Your task to perform on an android device: See recent photos Image 0: 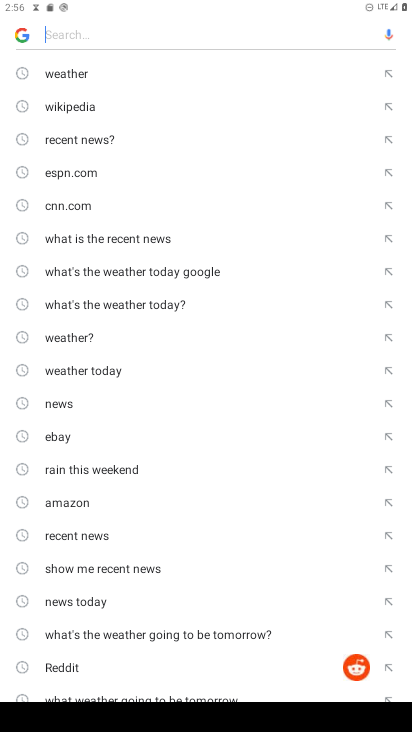
Step 0: press home button
Your task to perform on an android device: See recent photos Image 1: 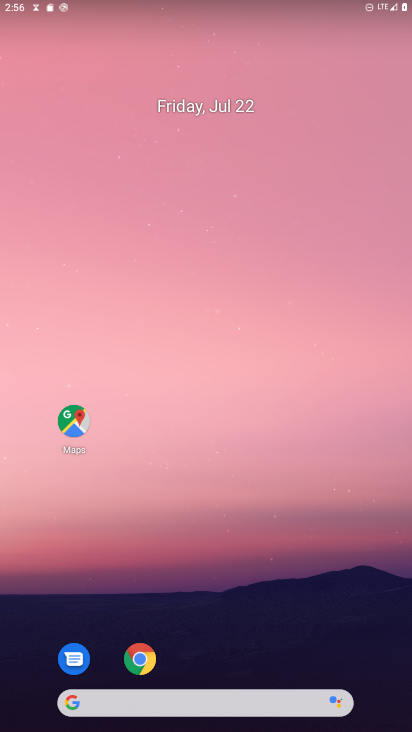
Step 1: drag from (209, 574) to (286, 86)
Your task to perform on an android device: See recent photos Image 2: 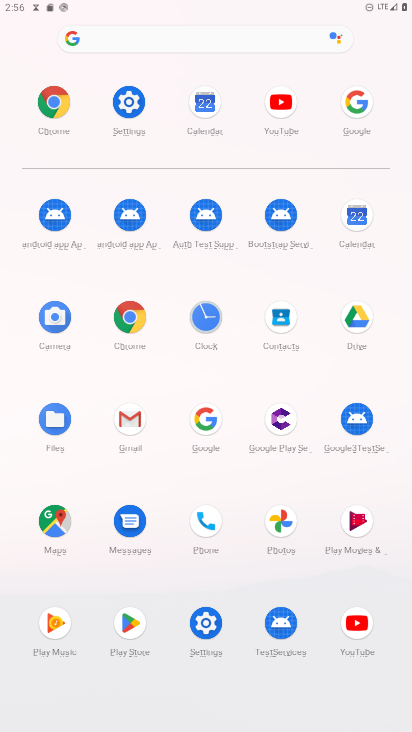
Step 2: click (278, 516)
Your task to perform on an android device: See recent photos Image 3: 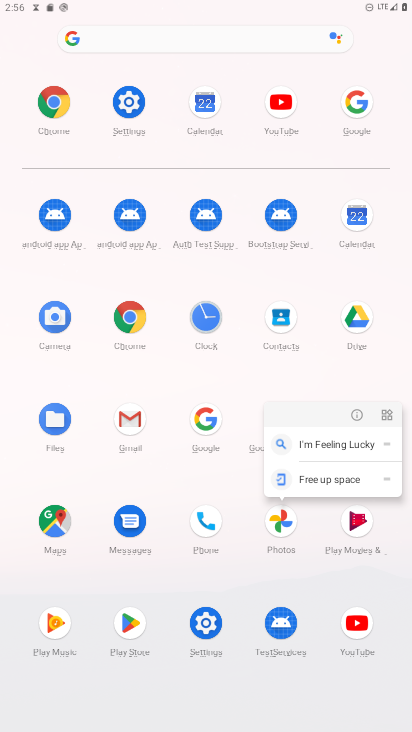
Step 3: click (277, 516)
Your task to perform on an android device: See recent photos Image 4: 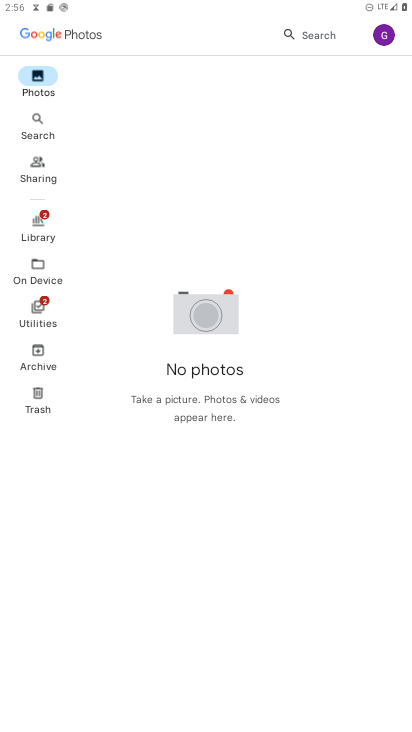
Step 4: task complete